Your task to perform on an android device: turn on priority inbox in the gmail app Image 0: 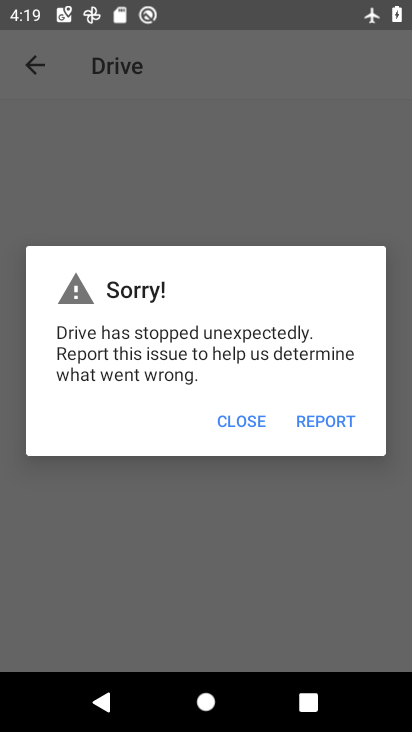
Step 0: press back button
Your task to perform on an android device: turn on priority inbox in the gmail app Image 1: 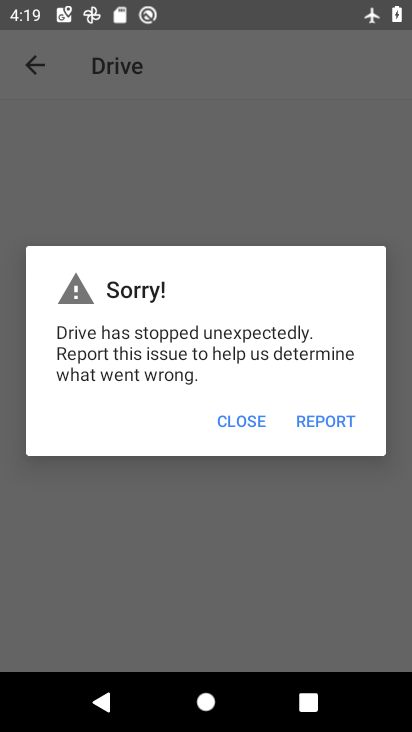
Step 1: press home button
Your task to perform on an android device: turn on priority inbox in the gmail app Image 2: 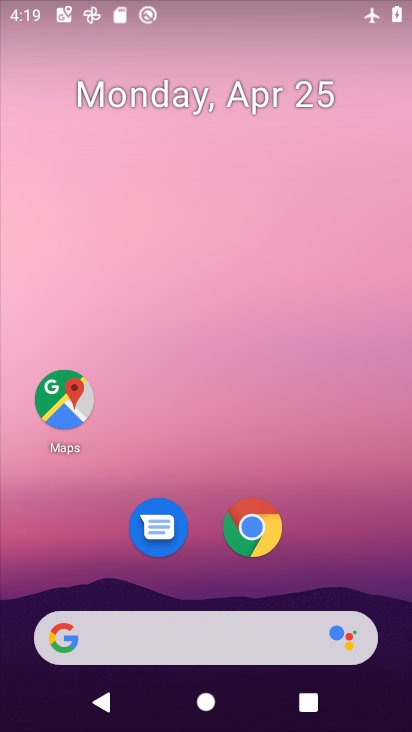
Step 2: drag from (387, 613) to (369, 91)
Your task to perform on an android device: turn on priority inbox in the gmail app Image 3: 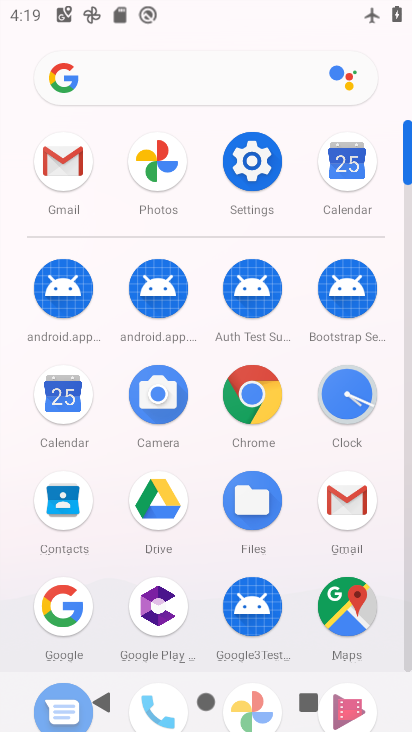
Step 3: click (406, 656)
Your task to perform on an android device: turn on priority inbox in the gmail app Image 4: 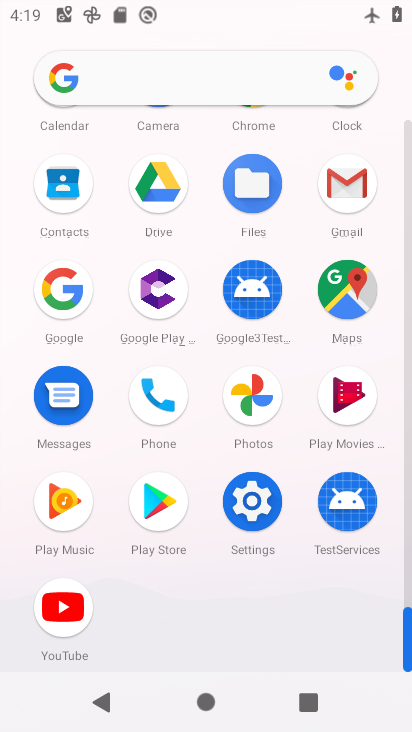
Step 4: click (344, 183)
Your task to perform on an android device: turn on priority inbox in the gmail app Image 5: 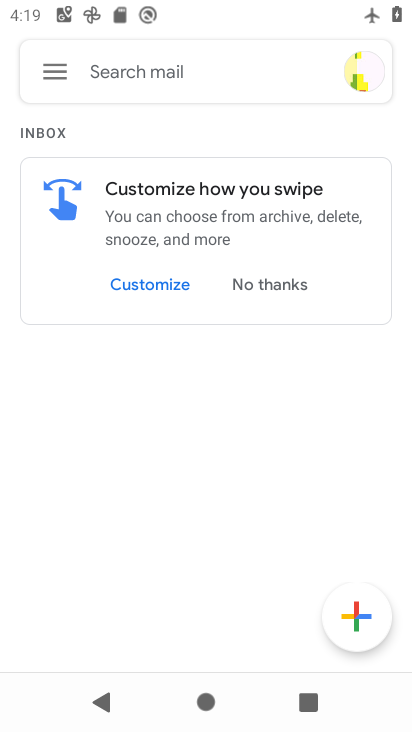
Step 5: click (48, 68)
Your task to perform on an android device: turn on priority inbox in the gmail app Image 6: 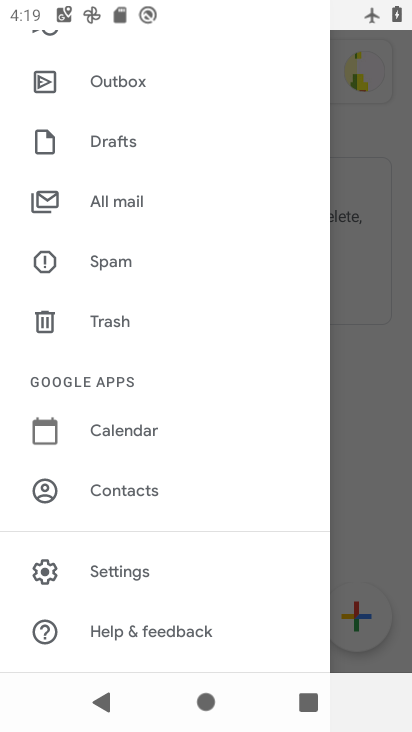
Step 6: click (96, 567)
Your task to perform on an android device: turn on priority inbox in the gmail app Image 7: 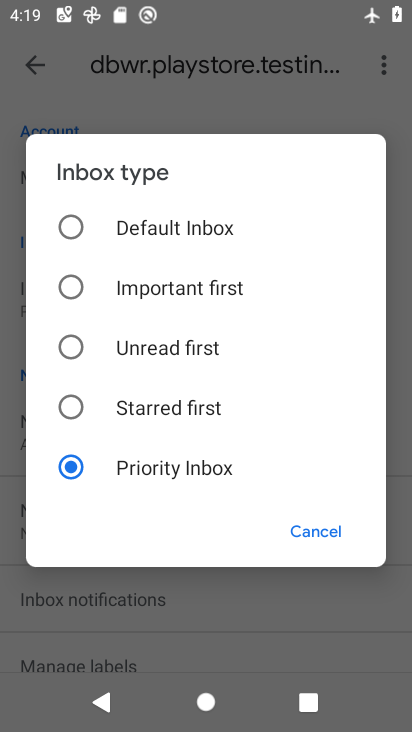
Step 7: task complete